Your task to perform on an android device: Open calendar and show me the second week of next month Image 0: 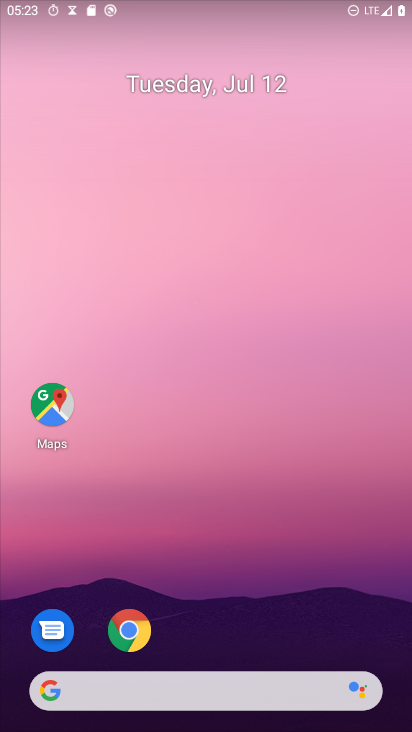
Step 0: drag from (287, 688) to (369, 83)
Your task to perform on an android device: Open calendar and show me the second week of next month Image 1: 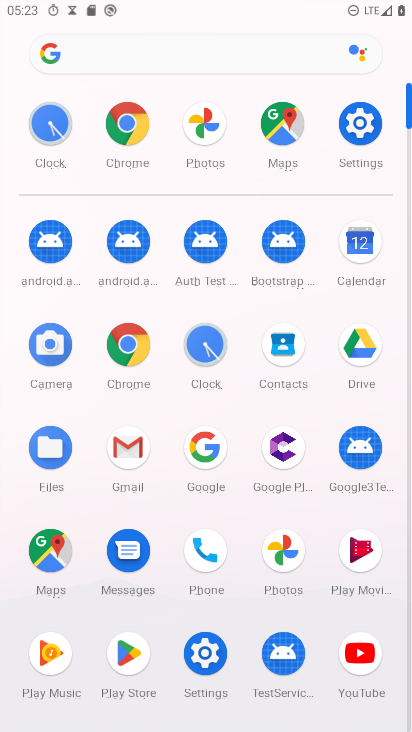
Step 1: click (357, 248)
Your task to perform on an android device: Open calendar and show me the second week of next month Image 2: 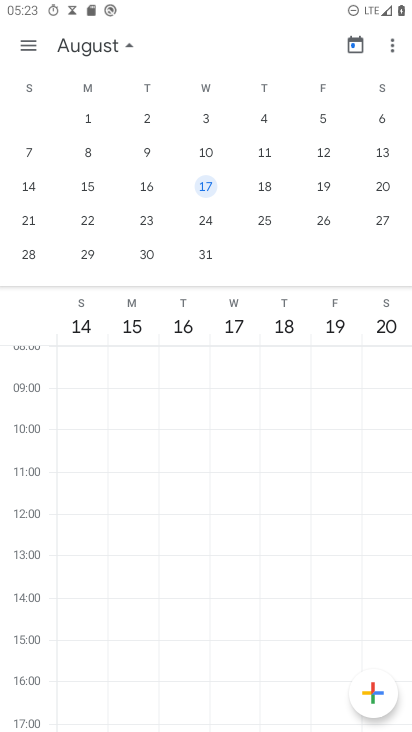
Step 2: drag from (328, 266) to (16, 238)
Your task to perform on an android device: Open calendar and show me the second week of next month Image 3: 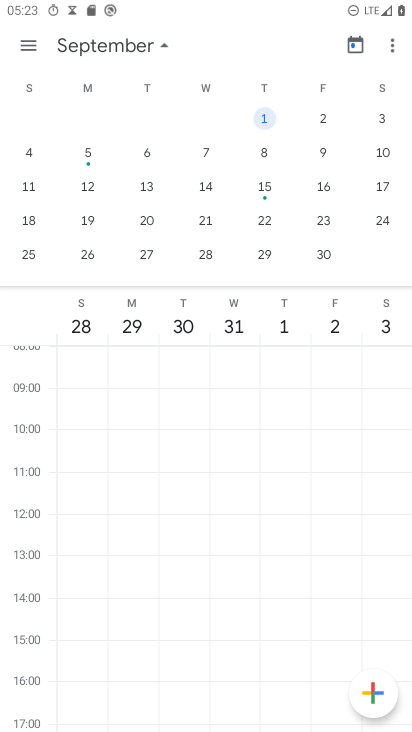
Step 3: drag from (64, 170) to (405, 191)
Your task to perform on an android device: Open calendar and show me the second week of next month Image 4: 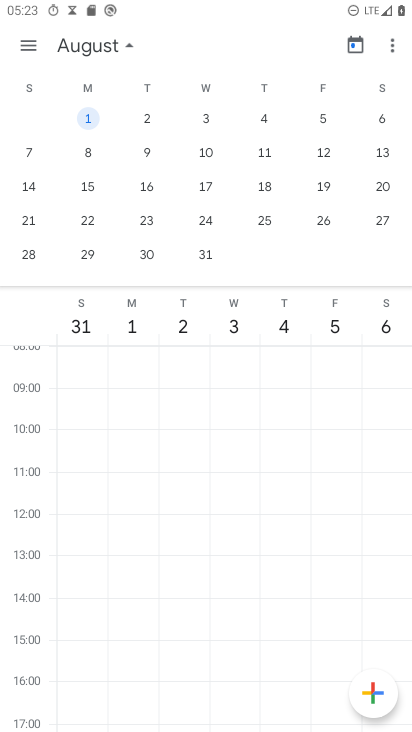
Step 4: click (205, 156)
Your task to perform on an android device: Open calendar and show me the second week of next month Image 5: 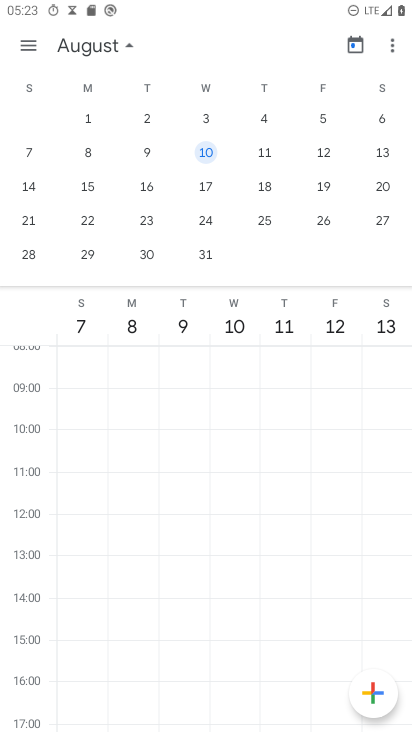
Step 5: task complete